Your task to perform on an android device: toggle airplane mode Image 0: 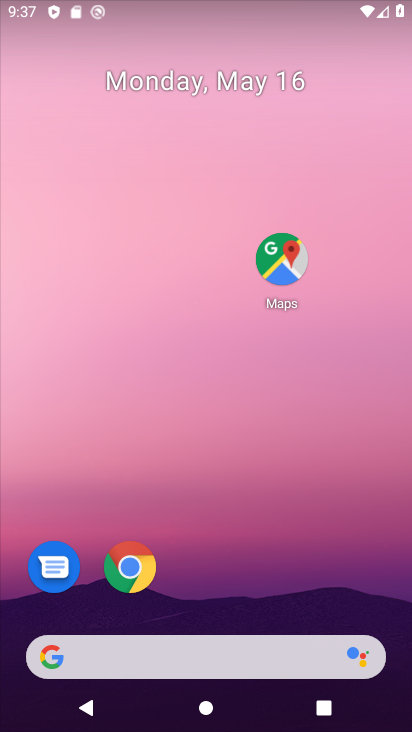
Step 0: drag from (208, 556) to (164, 124)
Your task to perform on an android device: toggle airplane mode Image 1: 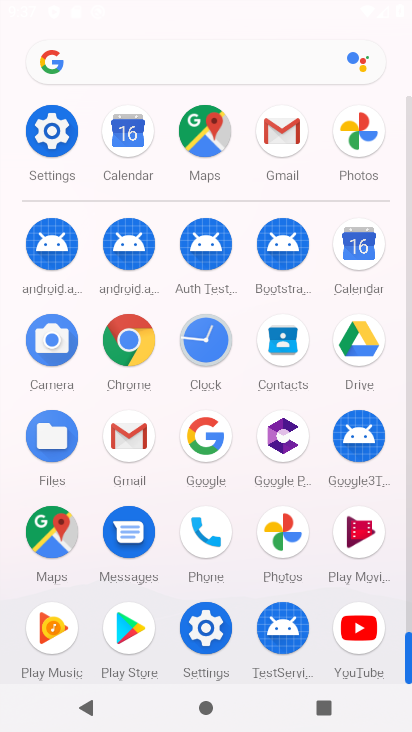
Step 1: click (62, 129)
Your task to perform on an android device: toggle airplane mode Image 2: 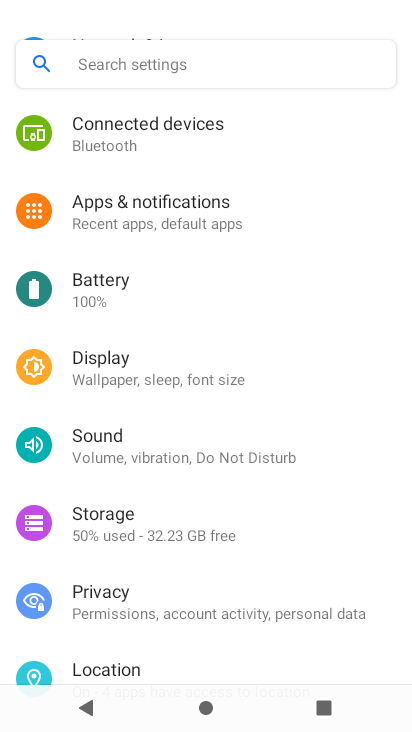
Step 2: drag from (205, 191) to (304, 580)
Your task to perform on an android device: toggle airplane mode Image 3: 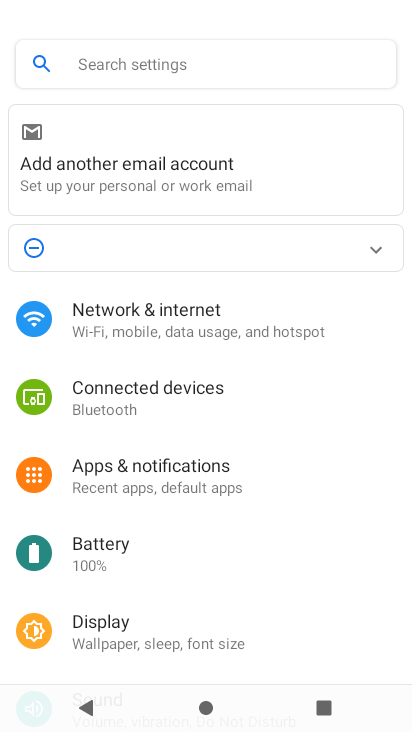
Step 3: click (154, 331)
Your task to perform on an android device: toggle airplane mode Image 4: 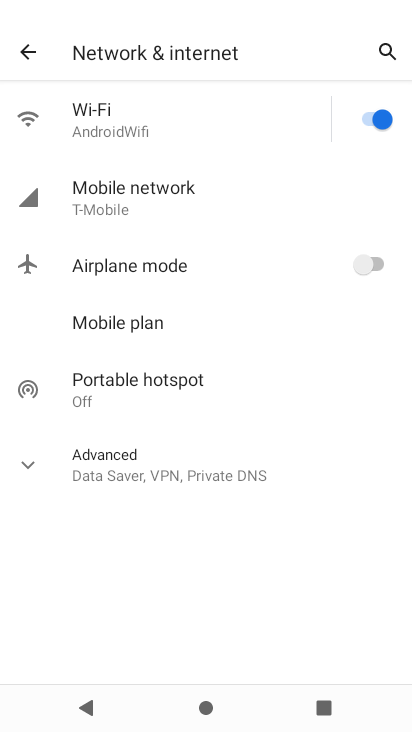
Step 4: click (365, 261)
Your task to perform on an android device: toggle airplane mode Image 5: 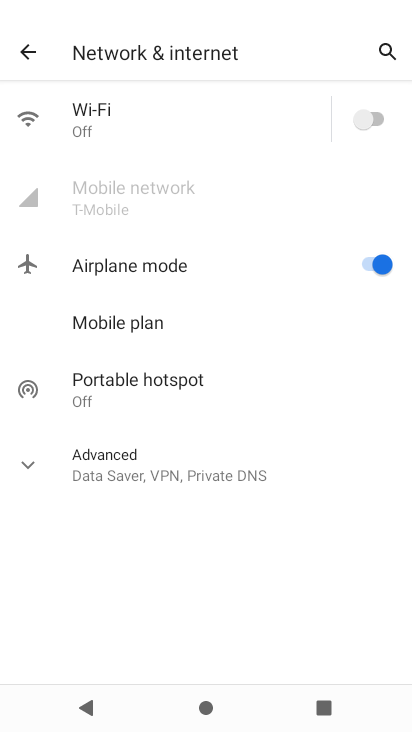
Step 5: task complete